Your task to perform on an android device: Search for pizza restaurants on Maps Image 0: 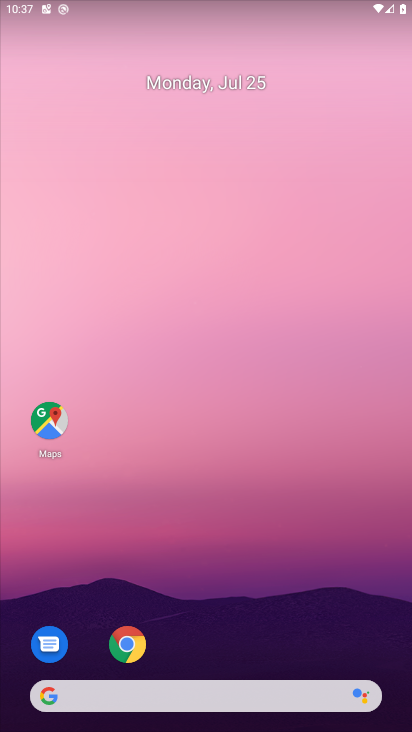
Step 0: drag from (244, 633) to (138, 100)
Your task to perform on an android device: Search for pizza restaurants on Maps Image 1: 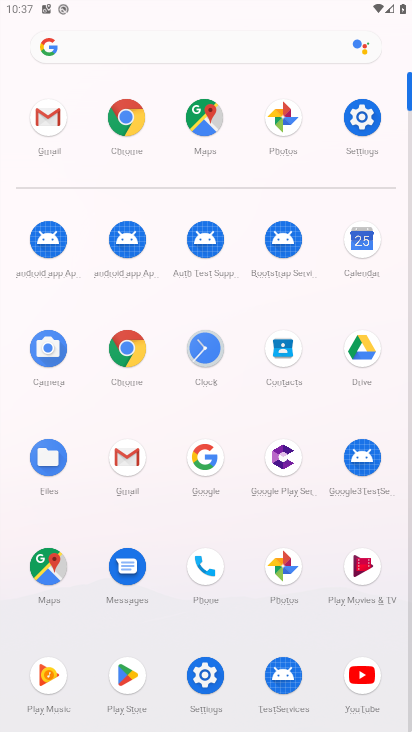
Step 1: click (145, 146)
Your task to perform on an android device: Search for pizza restaurants on Maps Image 2: 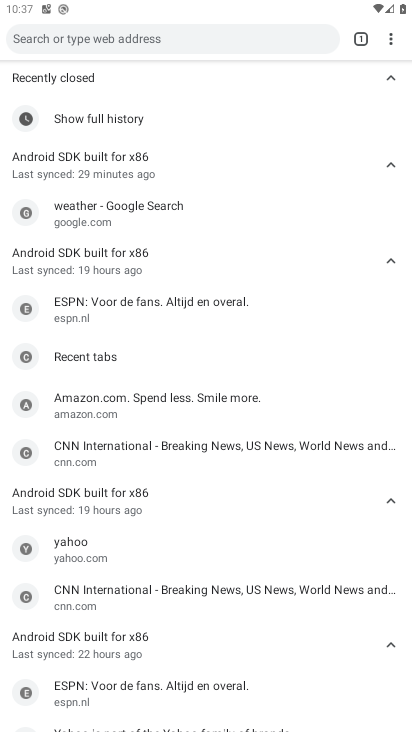
Step 2: click (139, 36)
Your task to perform on an android device: Search for pizza restaurants on Maps Image 3: 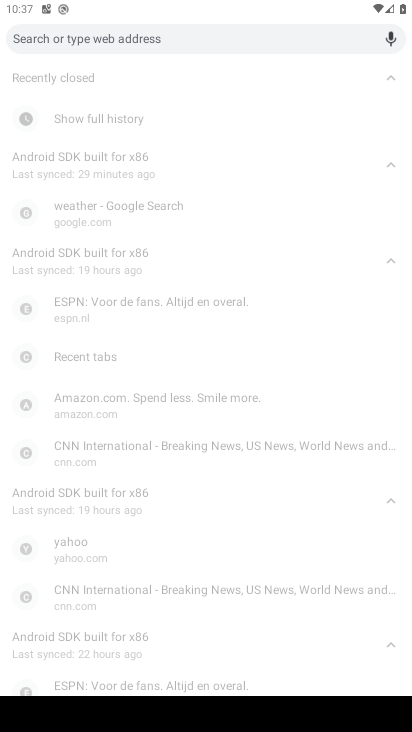
Step 3: type "pizza restaurants"
Your task to perform on an android device: Search for pizza restaurants on Maps Image 4: 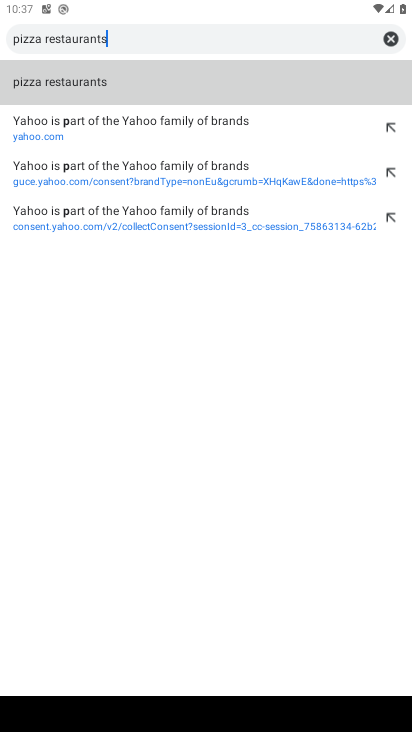
Step 4: type ""
Your task to perform on an android device: Search for pizza restaurants on Maps Image 5: 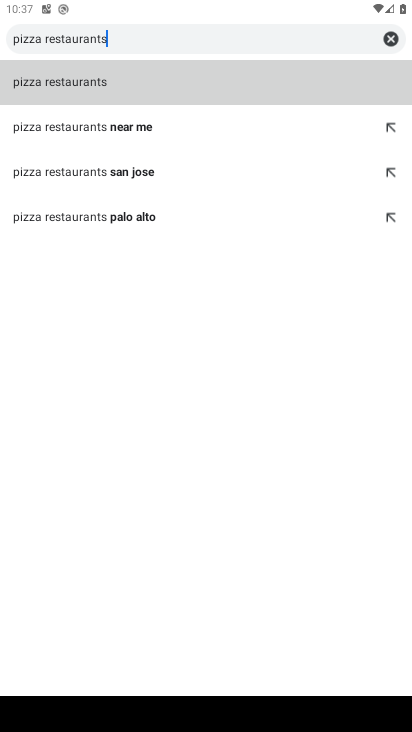
Step 5: click (392, 41)
Your task to perform on an android device: Search for pizza restaurants on Maps Image 6: 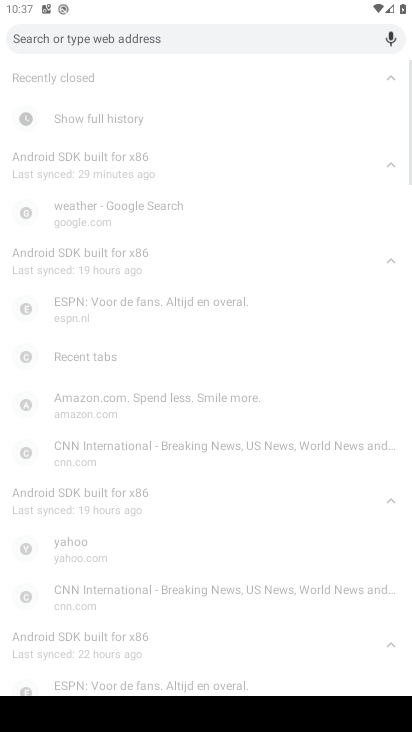
Step 6: press back button
Your task to perform on an android device: Search for pizza restaurants on Maps Image 7: 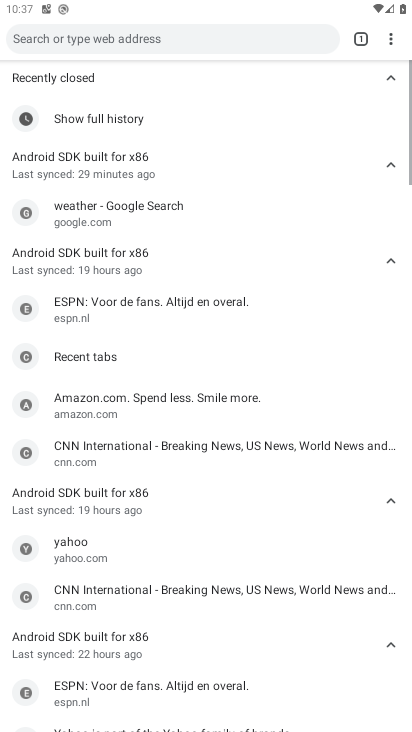
Step 7: press home button
Your task to perform on an android device: Search for pizza restaurants on Maps Image 8: 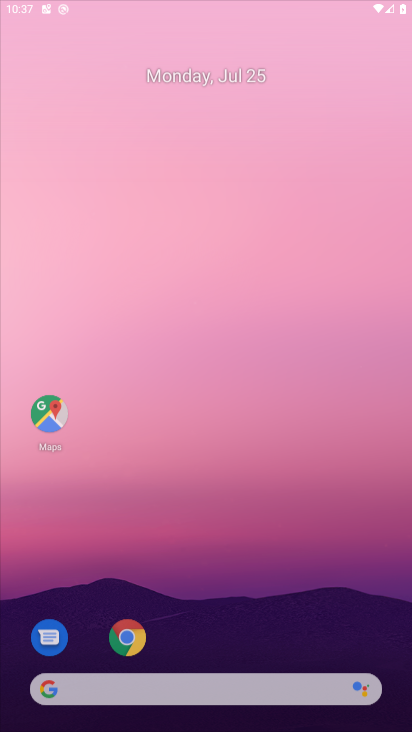
Step 8: drag from (282, 594) to (286, 2)
Your task to perform on an android device: Search for pizza restaurants on Maps Image 9: 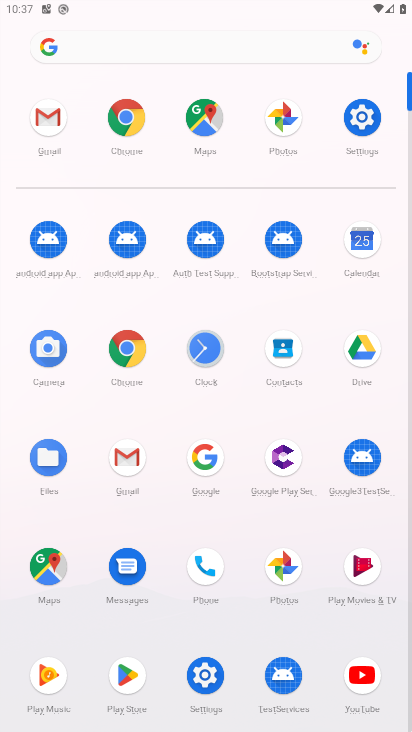
Step 9: click (213, 100)
Your task to perform on an android device: Search for pizza restaurants on Maps Image 10: 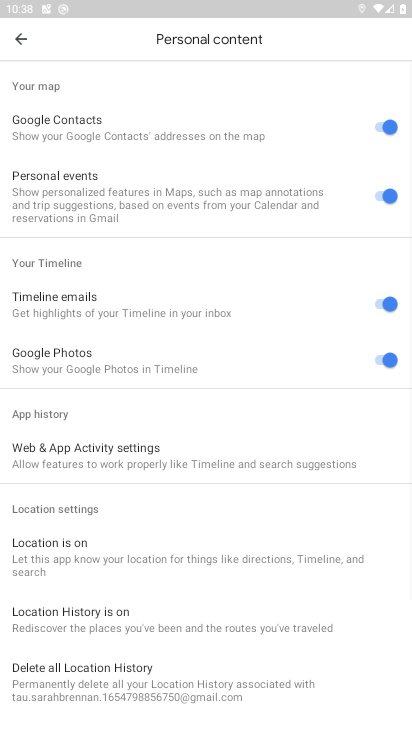
Step 10: click (21, 34)
Your task to perform on an android device: Search for pizza restaurants on Maps Image 11: 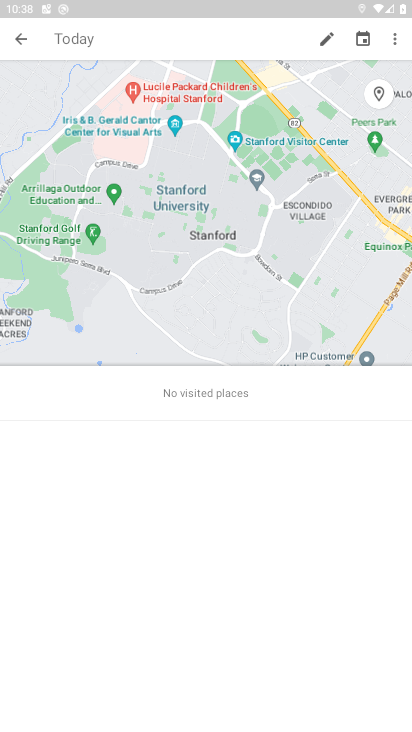
Step 11: click (21, 34)
Your task to perform on an android device: Search for pizza restaurants on Maps Image 12: 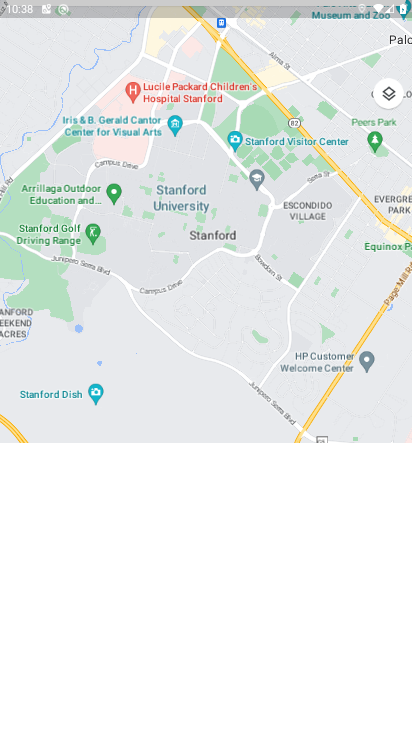
Step 12: click (97, 40)
Your task to perform on an android device: Search for pizza restaurants on Maps Image 13: 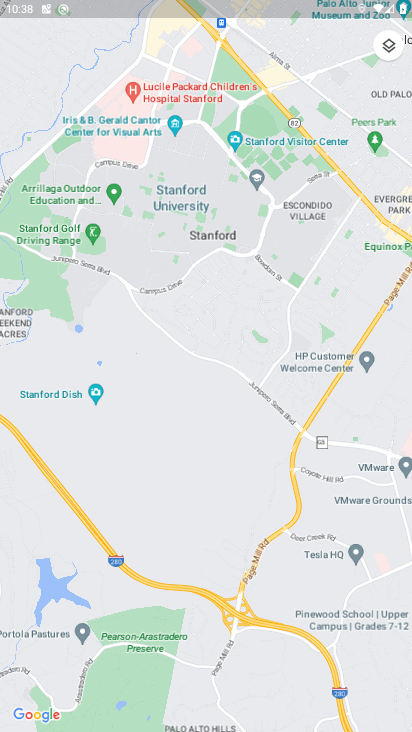
Step 13: press back button
Your task to perform on an android device: Search for pizza restaurants on Maps Image 14: 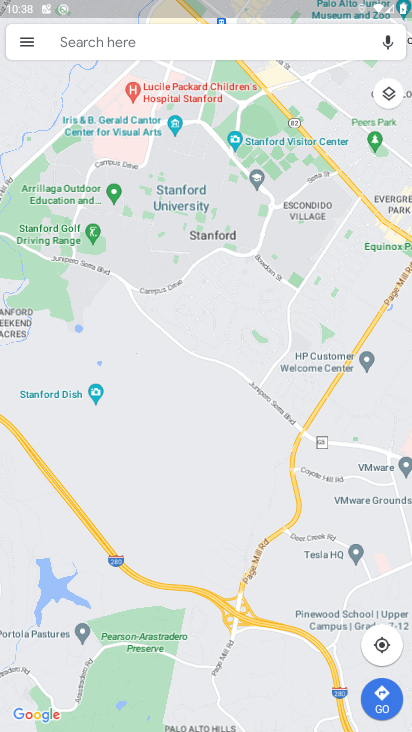
Step 14: click (128, 36)
Your task to perform on an android device: Search for pizza restaurants on Maps Image 15: 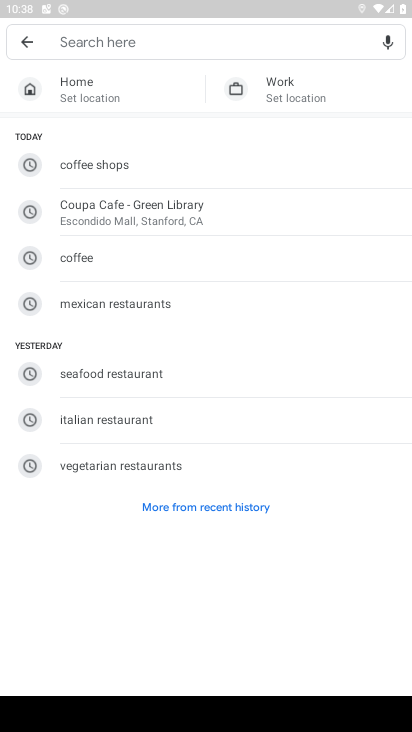
Step 15: type "pizza restaurants"
Your task to perform on an android device: Search for pizza restaurants on Maps Image 16: 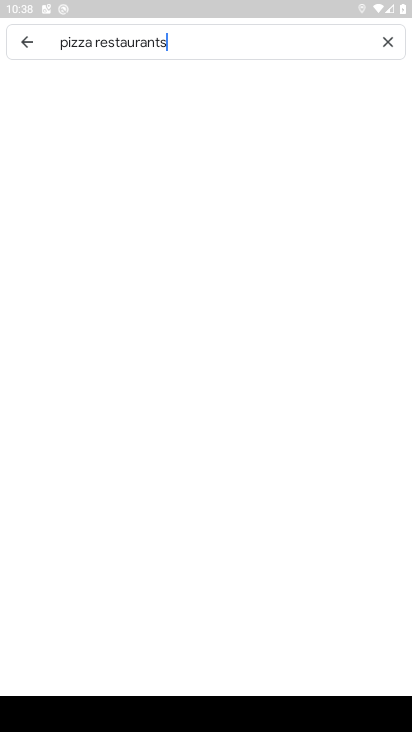
Step 16: type ""
Your task to perform on an android device: Search for pizza restaurants on Maps Image 17: 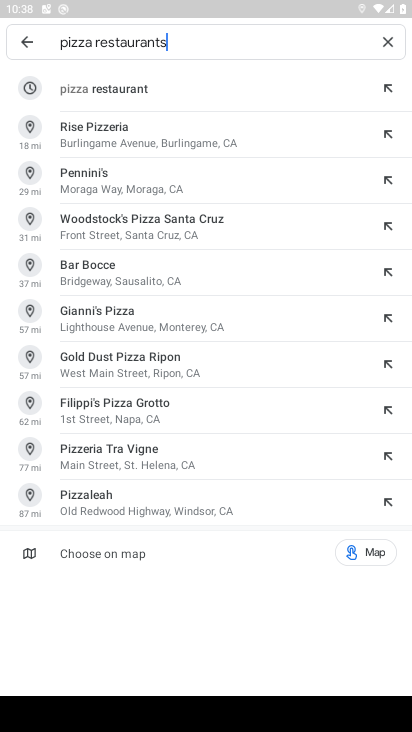
Step 17: click (95, 89)
Your task to perform on an android device: Search for pizza restaurants on Maps Image 18: 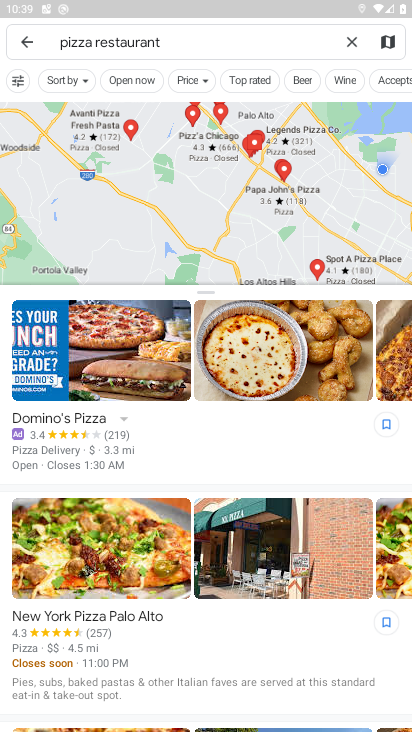
Step 18: task complete